Your task to perform on an android device: Search for sushi restaurants on Maps Image 0: 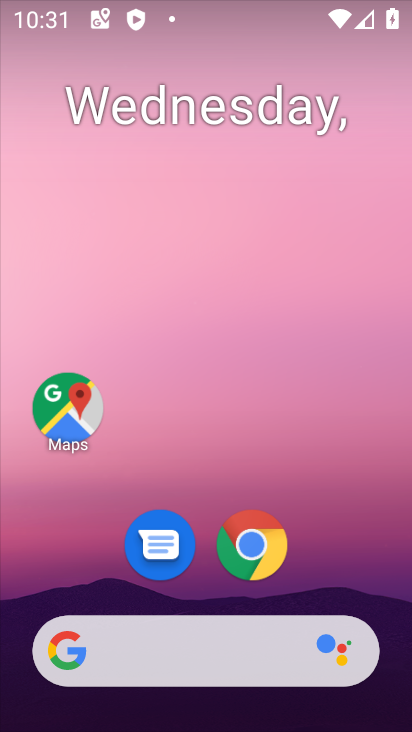
Step 0: click (70, 410)
Your task to perform on an android device: Search for sushi restaurants on Maps Image 1: 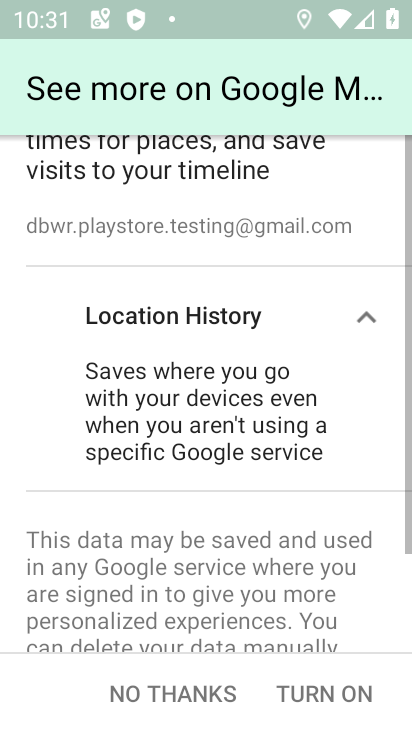
Step 1: click (279, 88)
Your task to perform on an android device: Search for sushi restaurants on Maps Image 2: 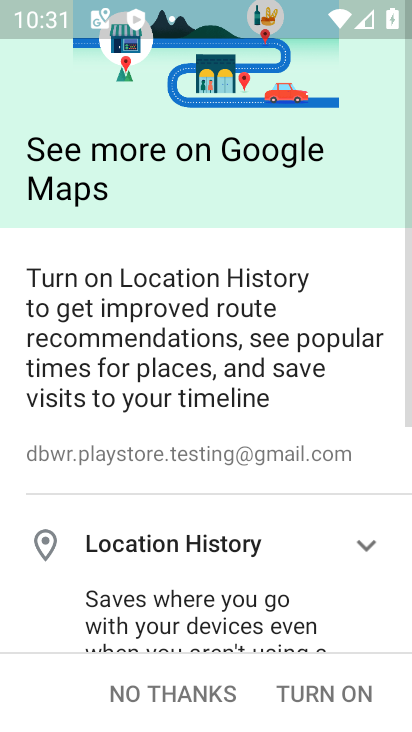
Step 2: click (327, 685)
Your task to perform on an android device: Search for sushi restaurants on Maps Image 3: 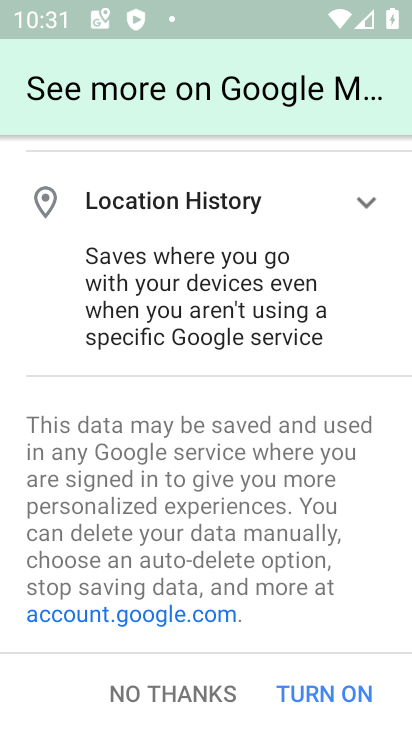
Step 3: click (327, 685)
Your task to perform on an android device: Search for sushi restaurants on Maps Image 4: 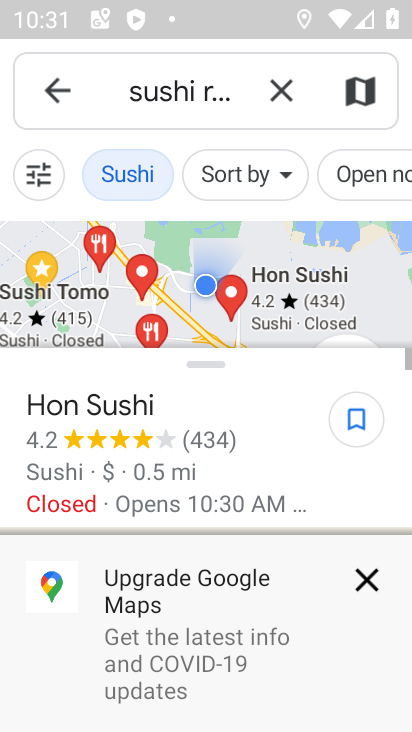
Step 4: click (279, 92)
Your task to perform on an android device: Search for sushi restaurants on Maps Image 5: 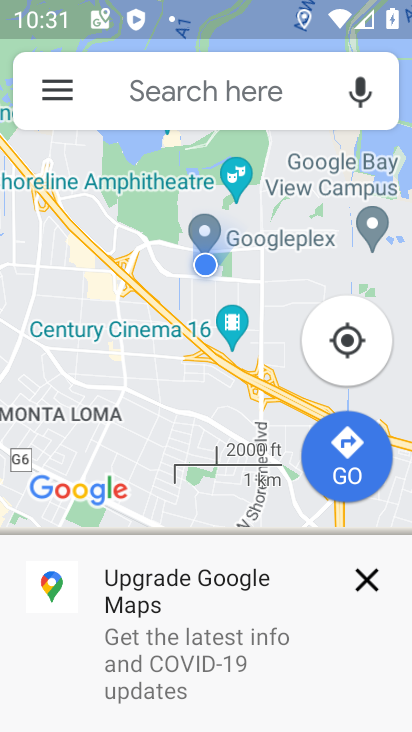
Step 5: click (191, 98)
Your task to perform on an android device: Search for sushi restaurants on Maps Image 6: 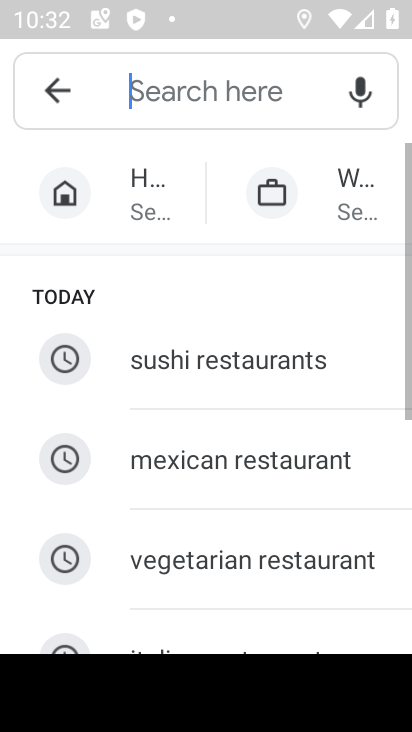
Step 6: click (183, 363)
Your task to perform on an android device: Search for sushi restaurants on Maps Image 7: 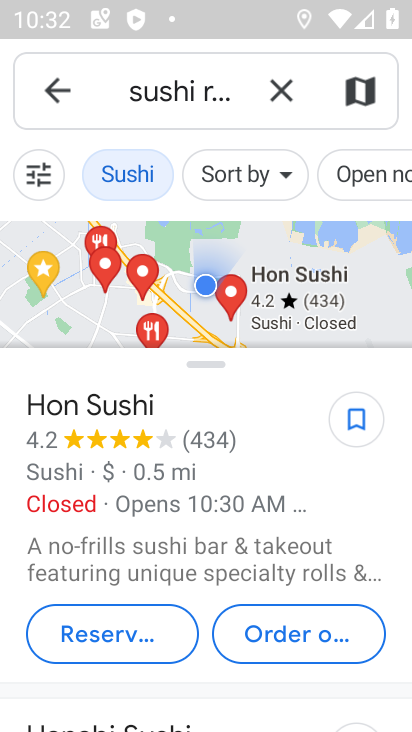
Step 7: task complete